Your task to perform on an android device: Go to Google maps Image 0: 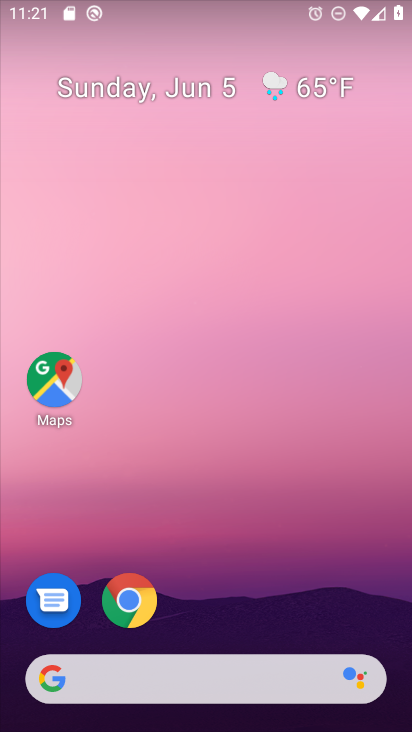
Step 0: drag from (394, 637) to (262, 60)
Your task to perform on an android device: Go to Google maps Image 1: 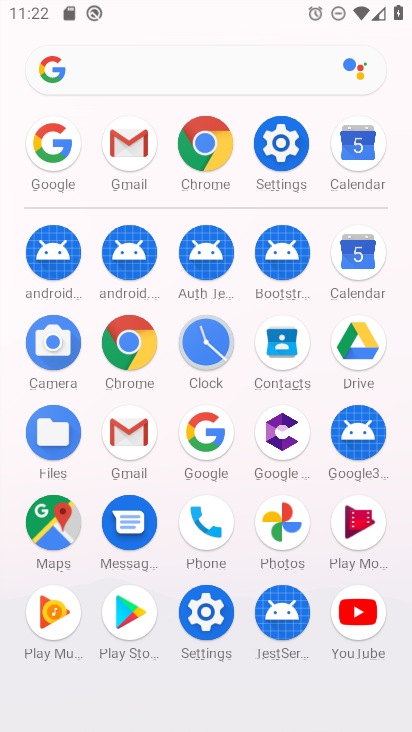
Step 1: click (203, 428)
Your task to perform on an android device: Go to Google maps Image 2: 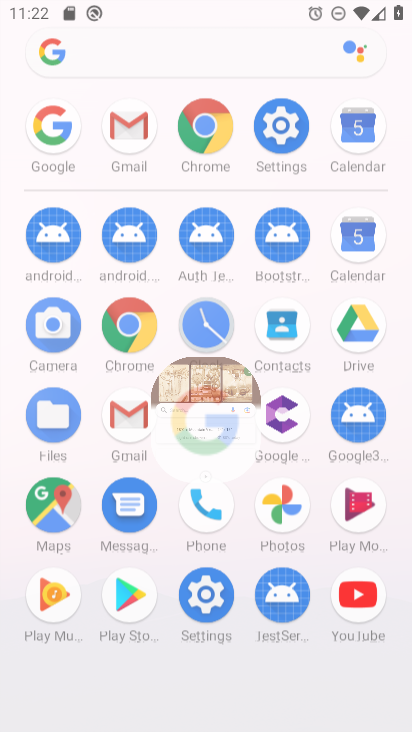
Step 2: press home button
Your task to perform on an android device: Go to Google maps Image 3: 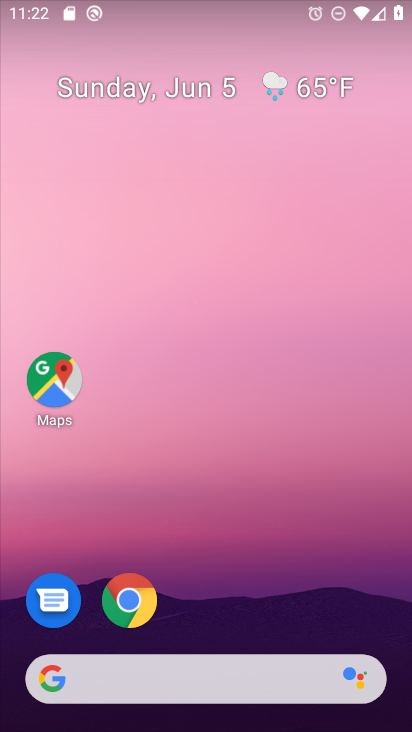
Step 3: drag from (324, 600) to (242, 43)
Your task to perform on an android device: Go to Google maps Image 4: 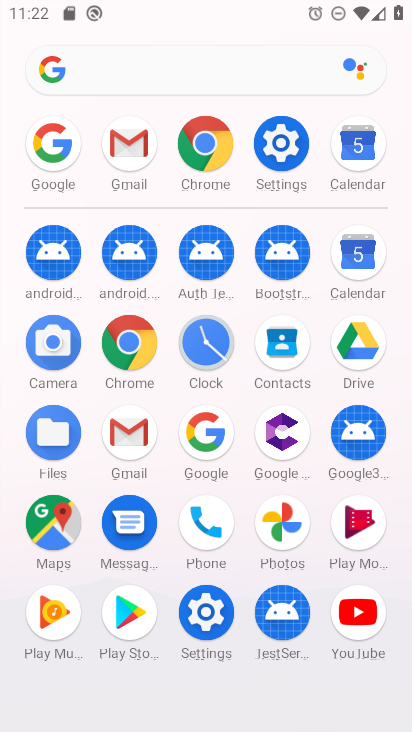
Step 4: click (61, 517)
Your task to perform on an android device: Go to Google maps Image 5: 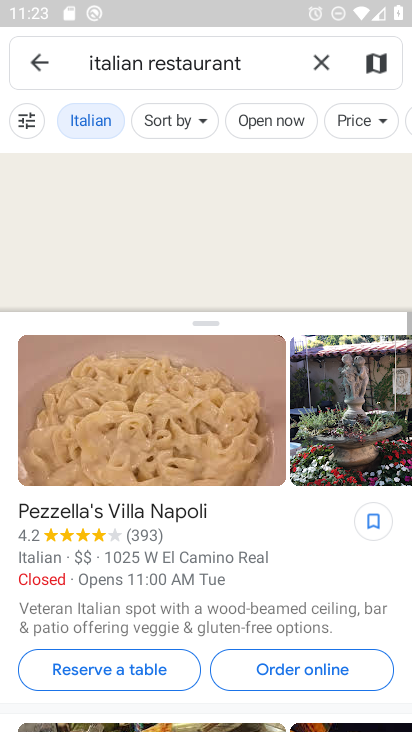
Step 5: click (321, 64)
Your task to perform on an android device: Go to Google maps Image 6: 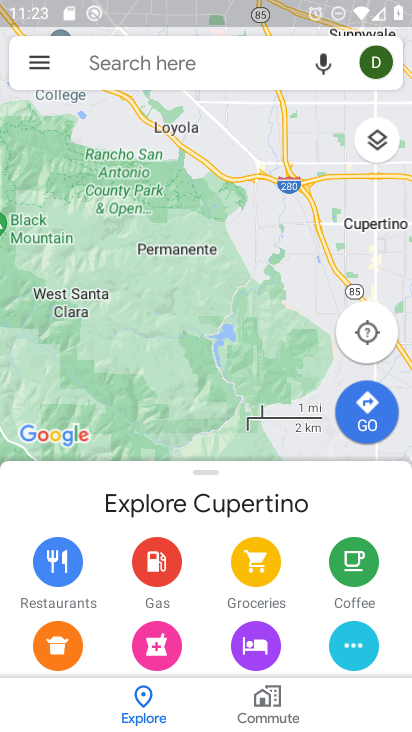
Step 6: task complete